Your task to perform on an android device: Go to battery settings Image 0: 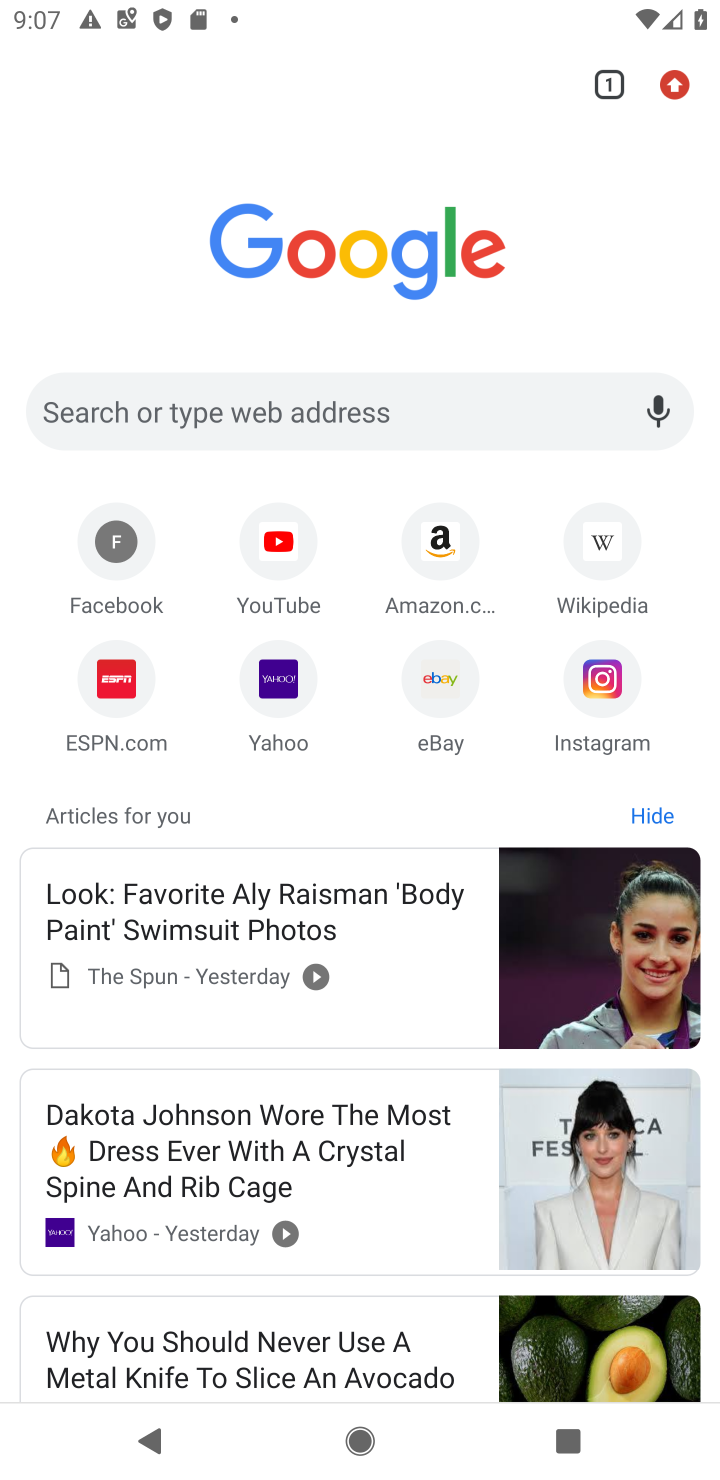
Step 0: drag from (326, 1189) to (397, 768)
Your task to perform on an android device: Go to battery settings Image 1: 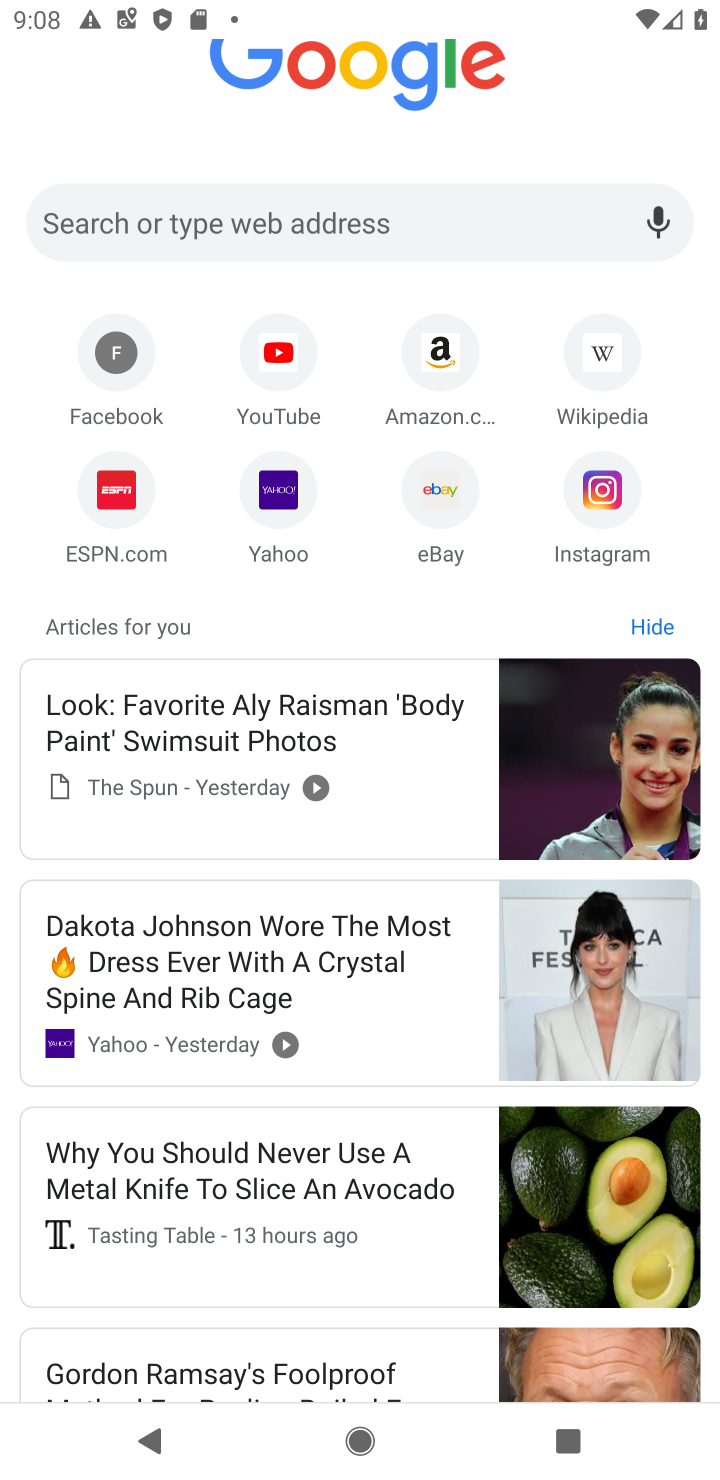
Step 1: press home button
Your task to perform on an android device: Go to battery settings Image 2: 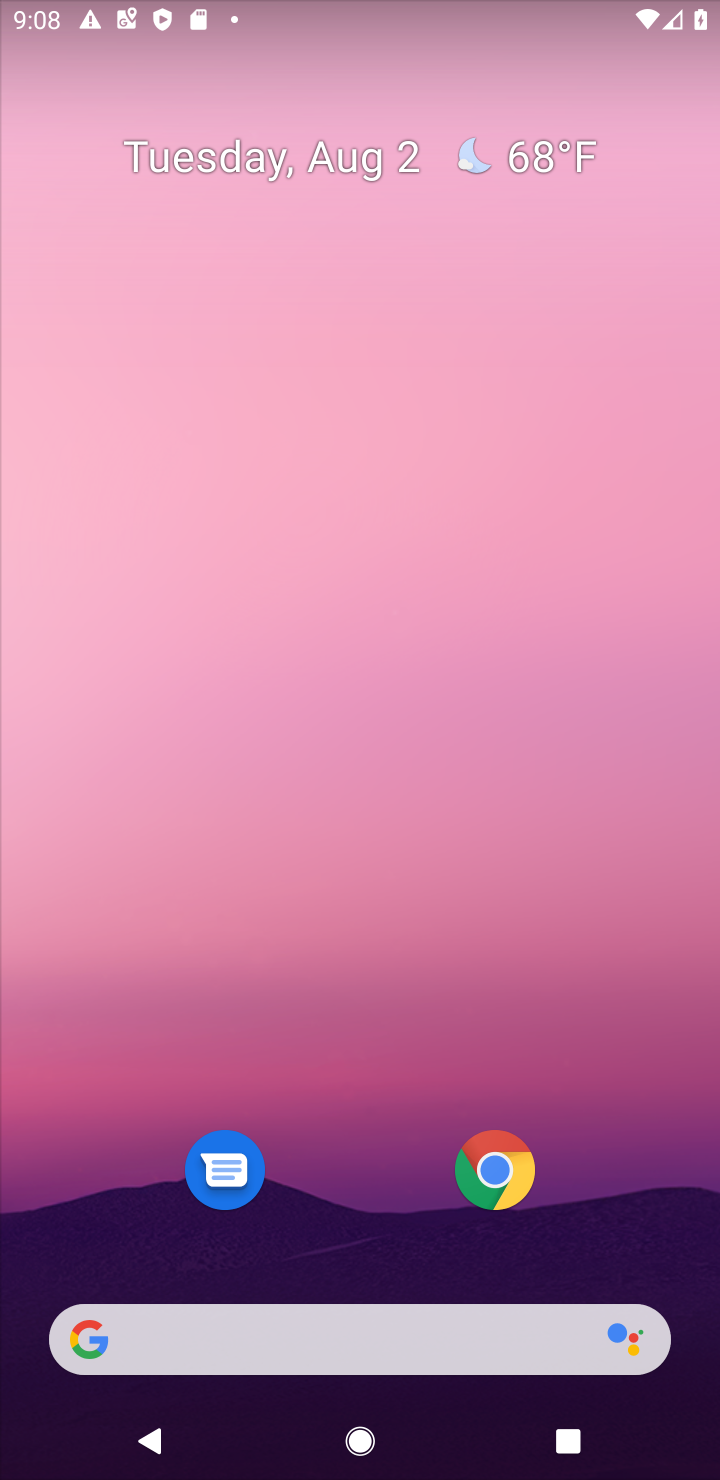
Step 2: click (362, 1236)
Your task to perform on an android device: Go to battery settings Image 3: 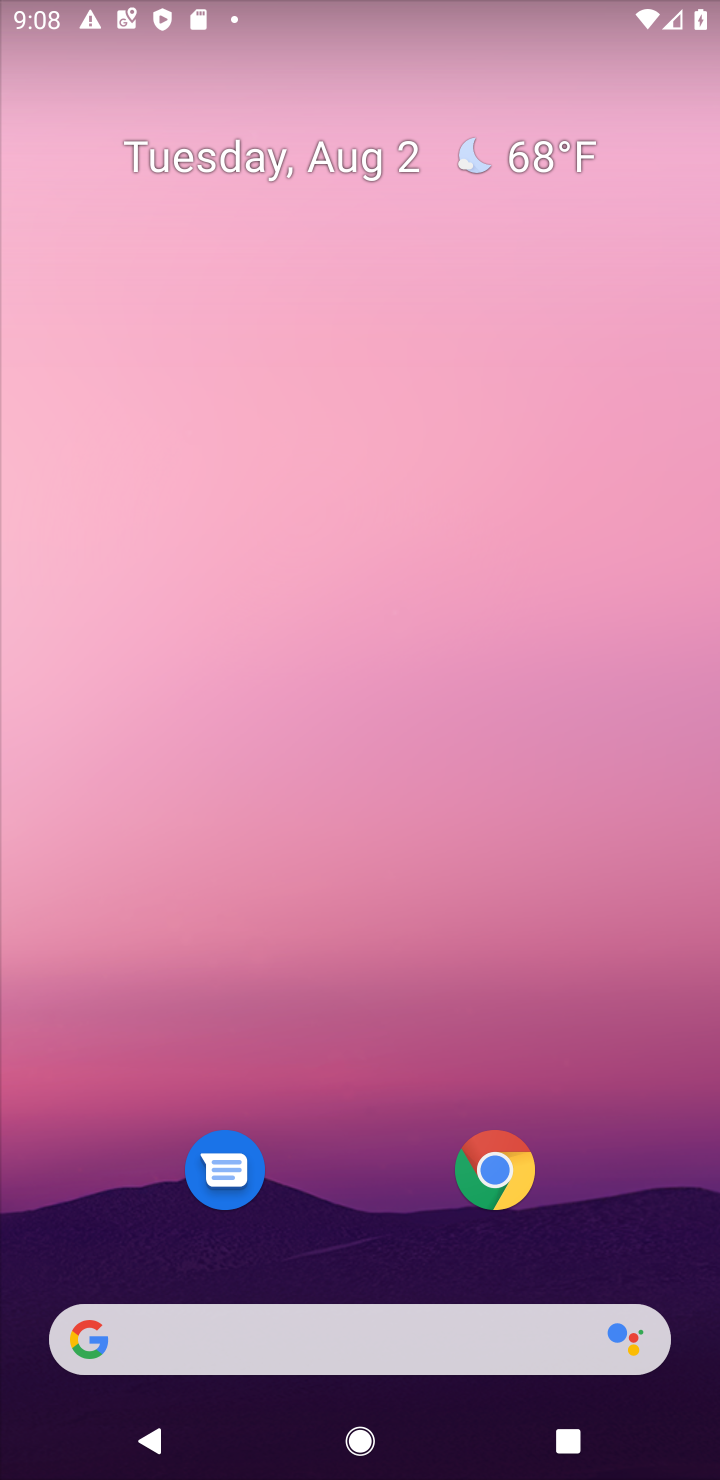
Step 3: drag from (379, 559) to (440, 25)
Your task to perform on an android device: Go to battery settings Image 4: 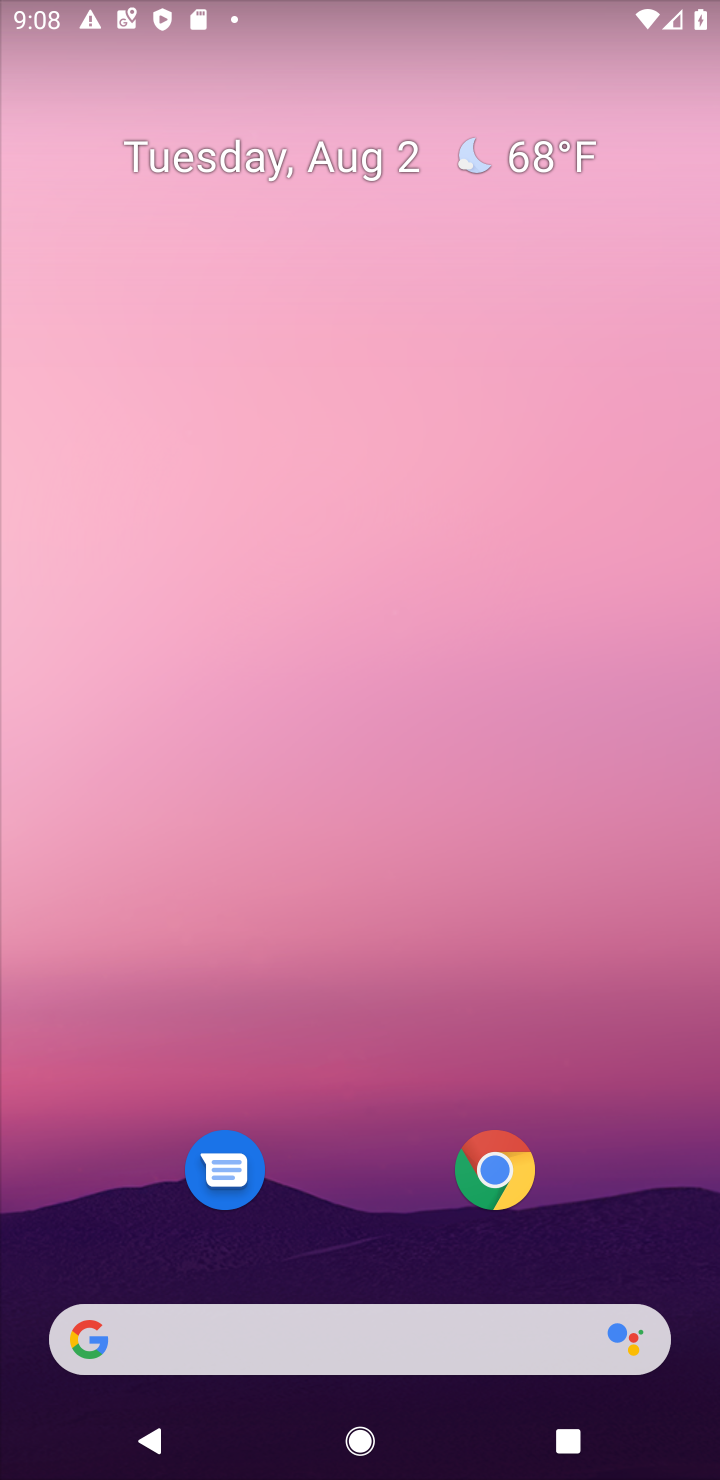
Step 4: drag from (342, 928) to (329, 42)
Your task to perform on an android device: Go to battery settings Image 5: 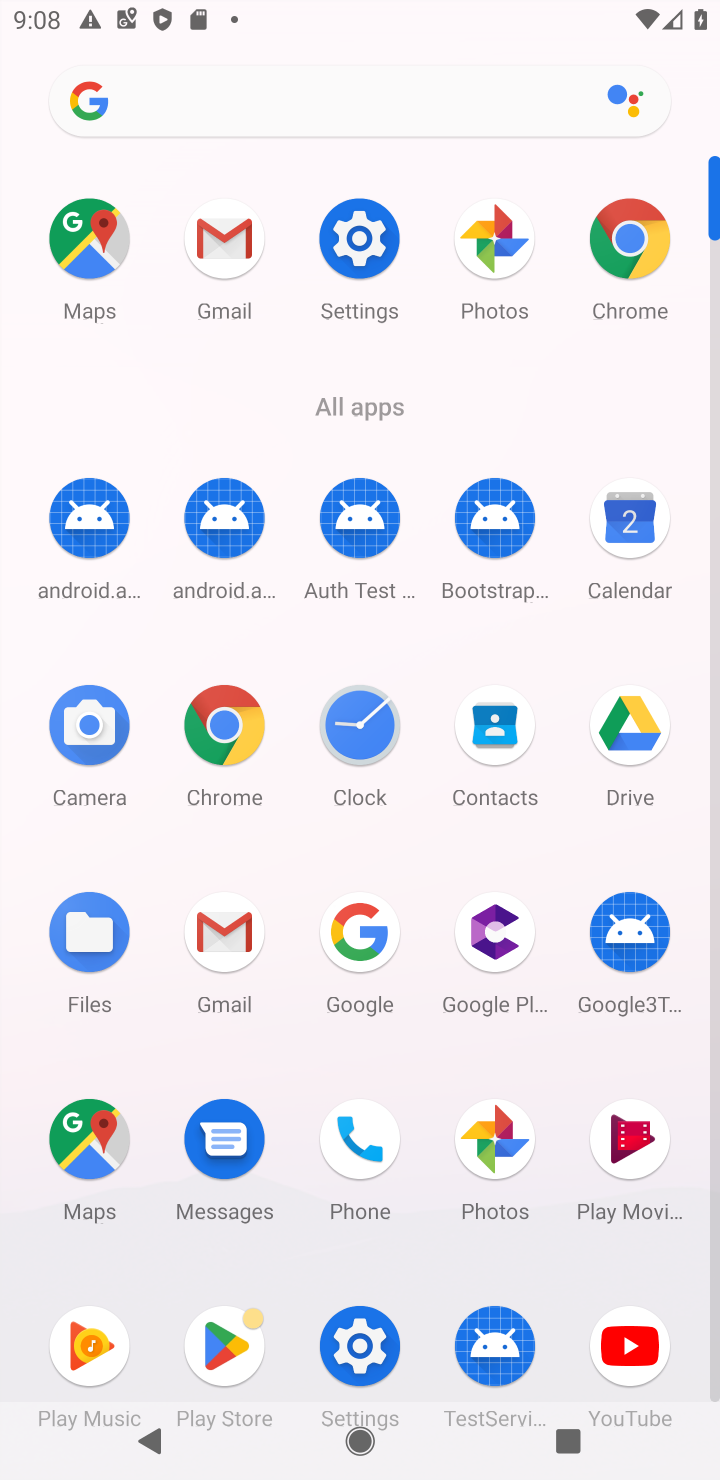
Step 5: click (349, 249)
Your task to perform on an android device: Go to battery settings Image 6: 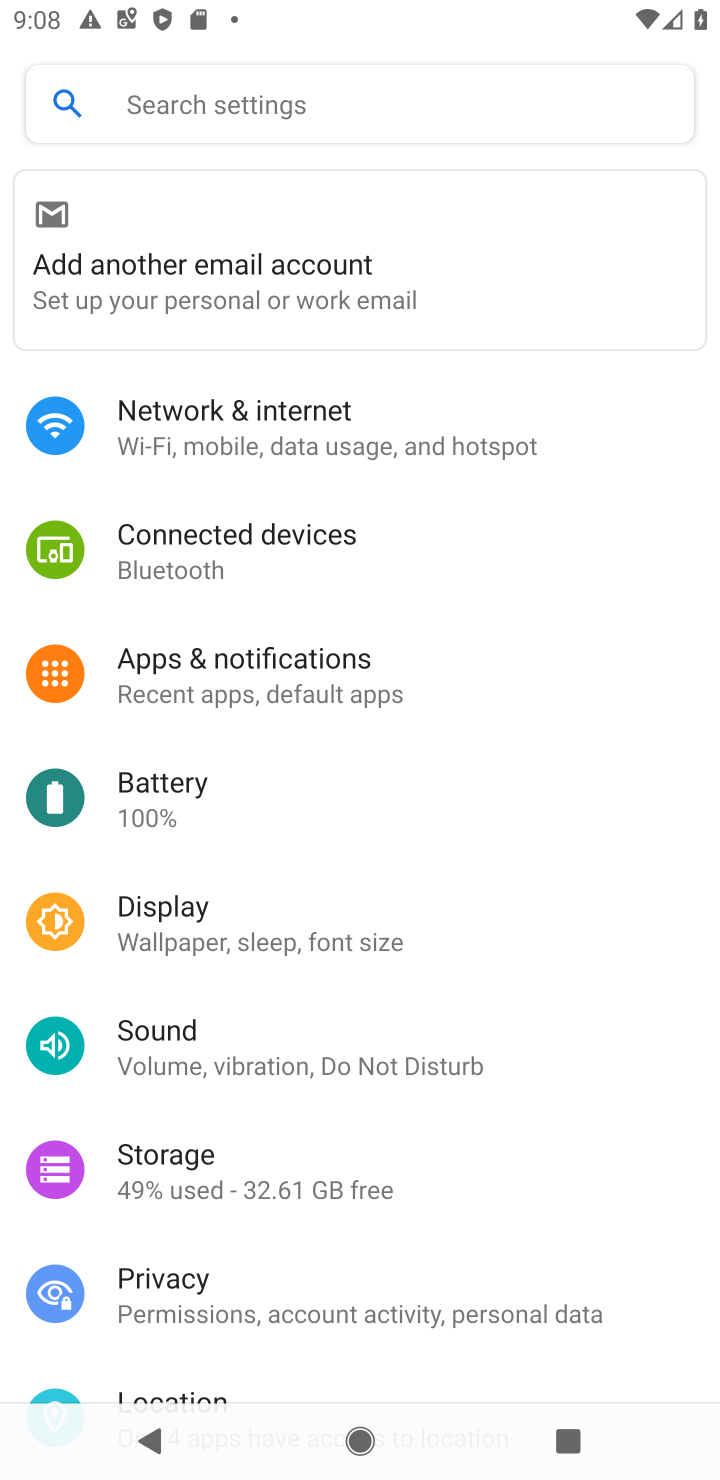
Step 6: click (151, 782)
Your task to perform on an android device: Go to battery settings Image 7: 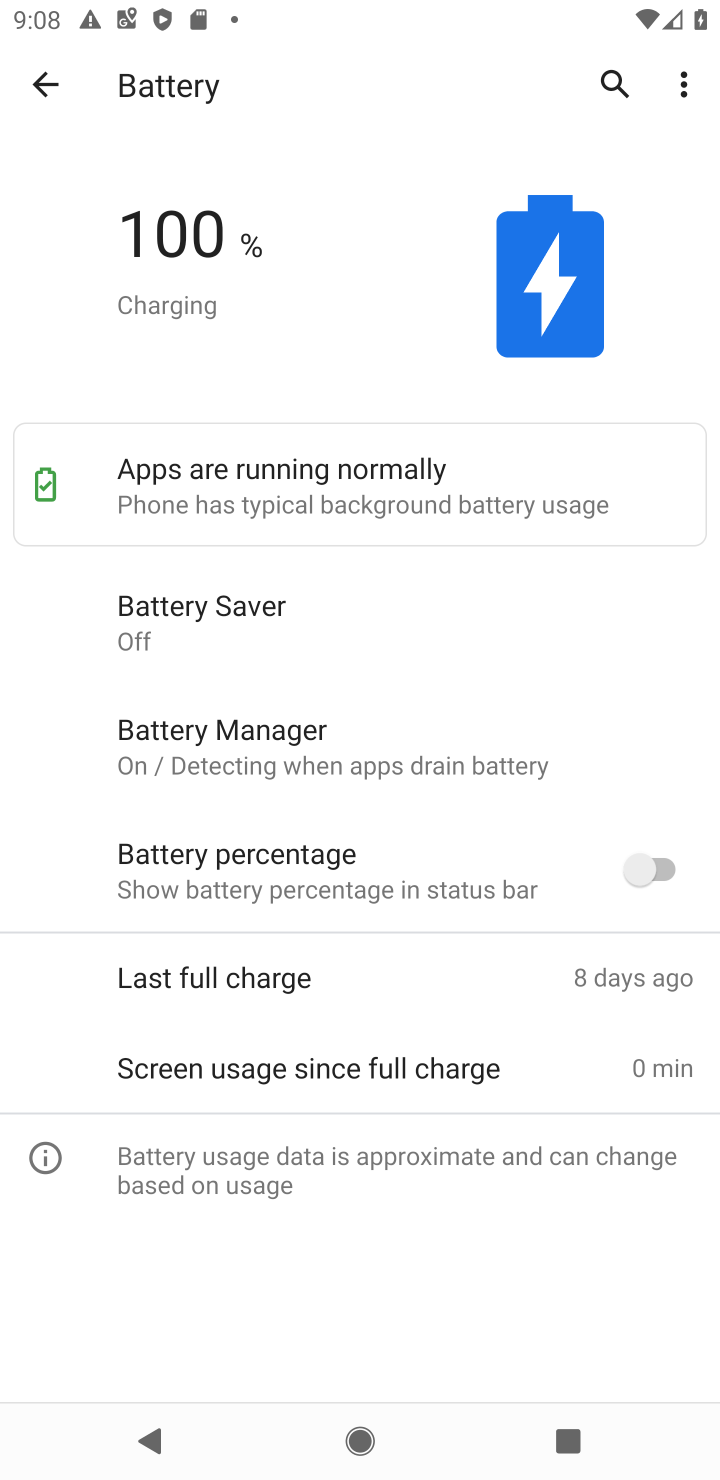
Step 7: task complete